Your task to perform on an android device: open a bookmark in the chrome app Image 0: 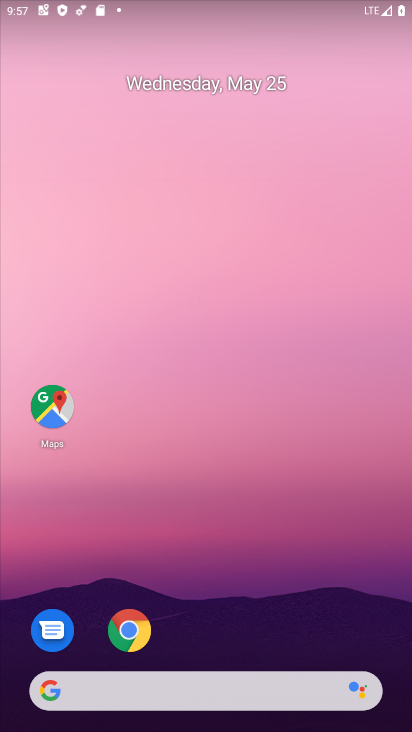
Step 0: click (135, 626)
Your task to perform on an android device: open a bookmark in the chrome app Image 1: 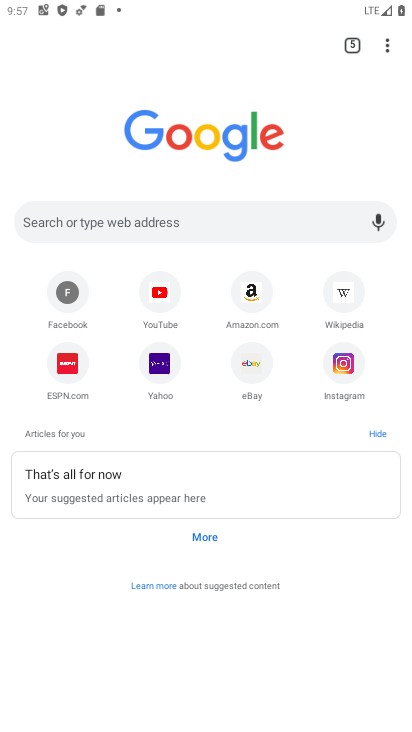
Step 1: drag from (384, 45) to (250, 176)
Your task to perform on an android device: open a bookmark in the chrome app Image 2: 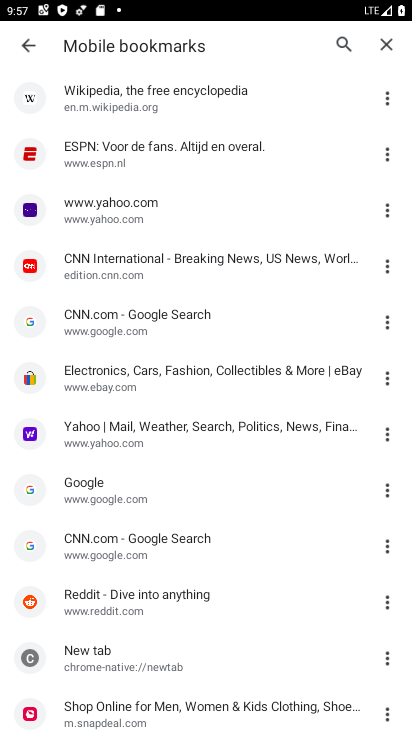
Step 2: click (110, 153)
Your task to perform on an android device: open a bookmark in the chrome app Image 3: 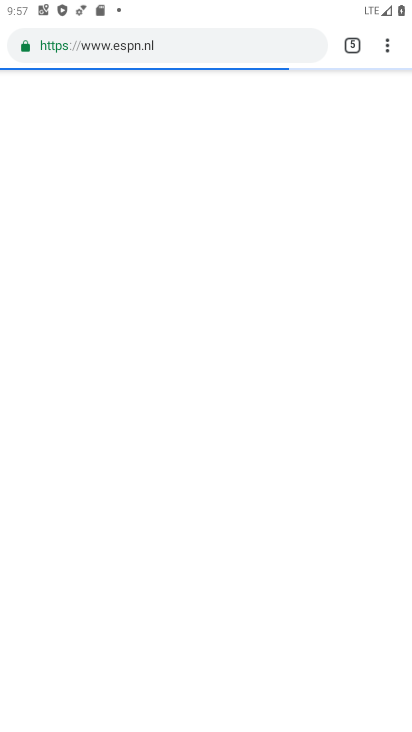
Step 3: task complete